Your task to perform on an android device: Open ESPN.com Image 0: 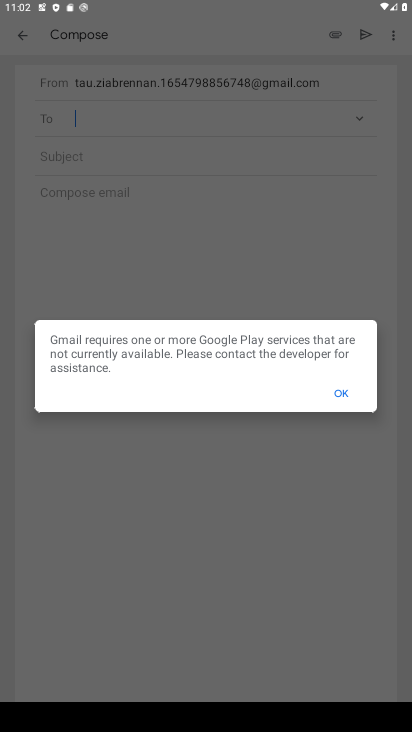
Step 0: click (333, 391)
Your task to perform on an android device: Open ESPN.com Image 1: 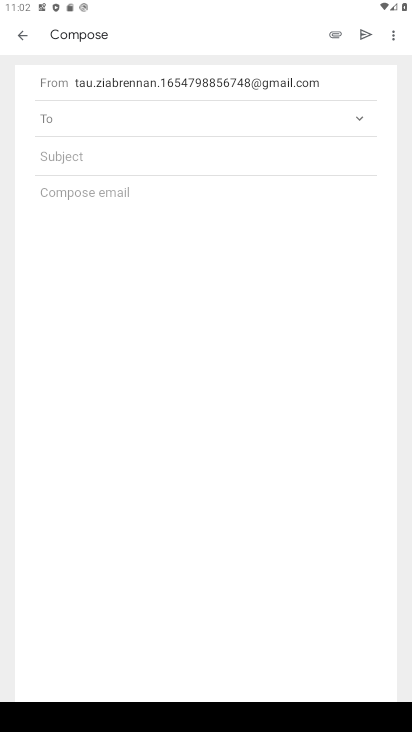
Step 1: press back button
Your task to perform on an android device: Open ESPN.com Image 2: 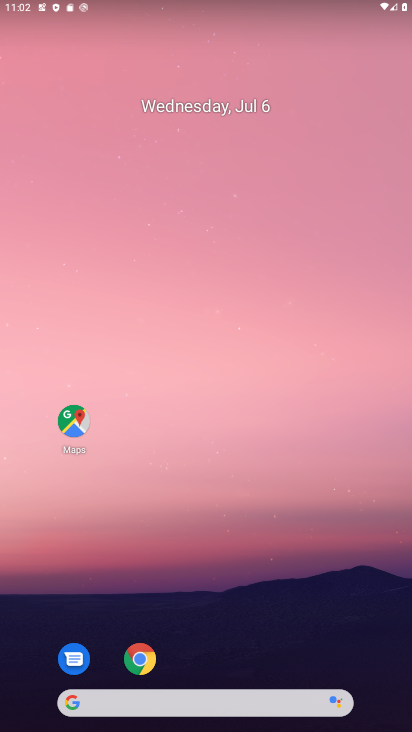
Step 2: click (139, 667)
Your task to perform on an android device: Open ESPN.com Image 3: 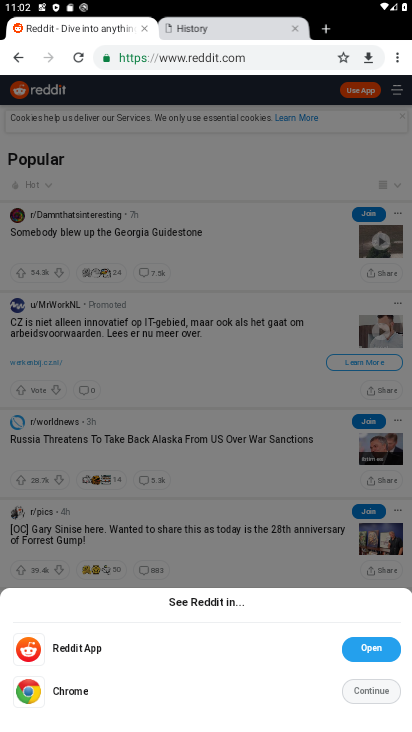
Step 3: click (146, 82)
Your task to perform on an android device: Open ESPN.com Image 4: 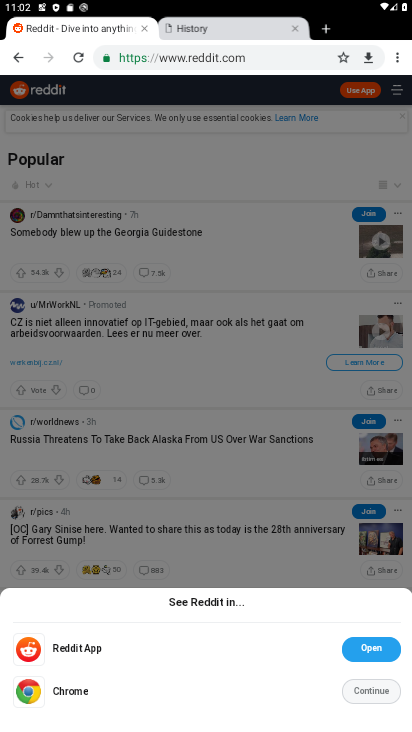
Step 4: click (232, 28)
Your task to perform on an android device: Open ESPN.com Image 5: 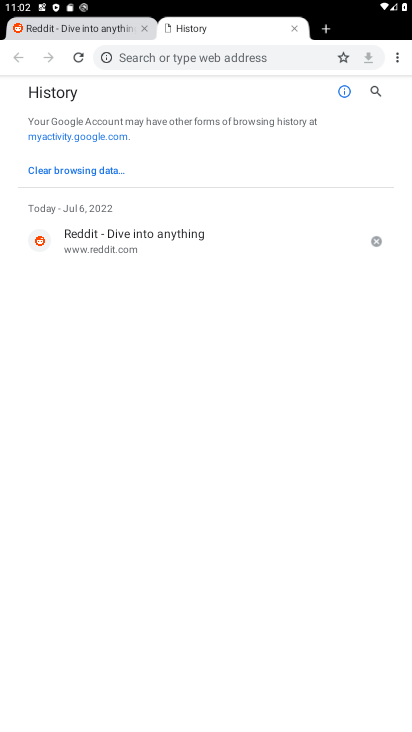
Step 5: click (324, 25)
Your task to perform on an android device: Open ESPN.com Image 6: 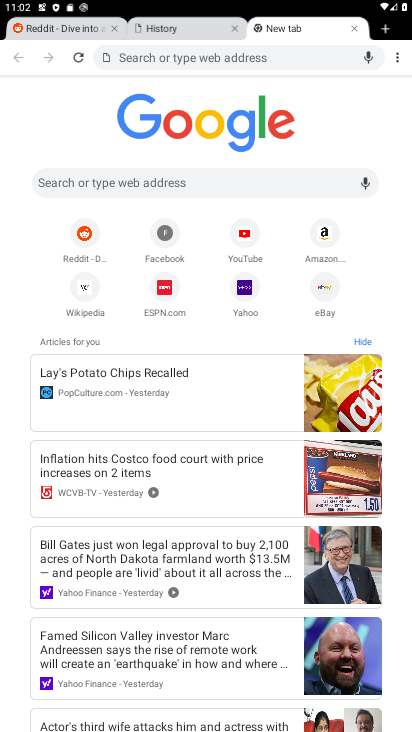
Step 6: click (161, 293)
Your task to perform on an android device: Open ESPN.com Image 7: 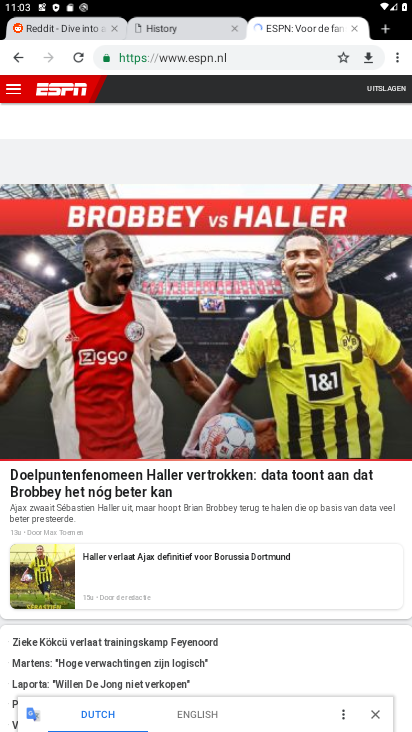
Step 7: task complete